Your task to perform on an android device: turn on the 12-hour format for clock Image 0: 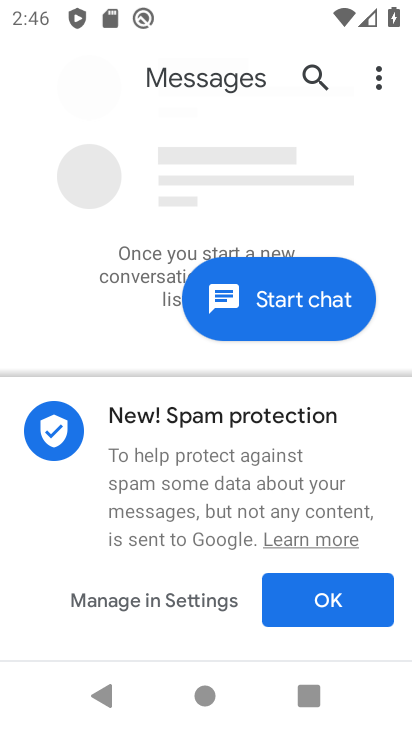
Step 0: drag from (94, 585) to (219, 8)
Your task to perform on an android device: turn on the 12-hour format for clock Image 1: 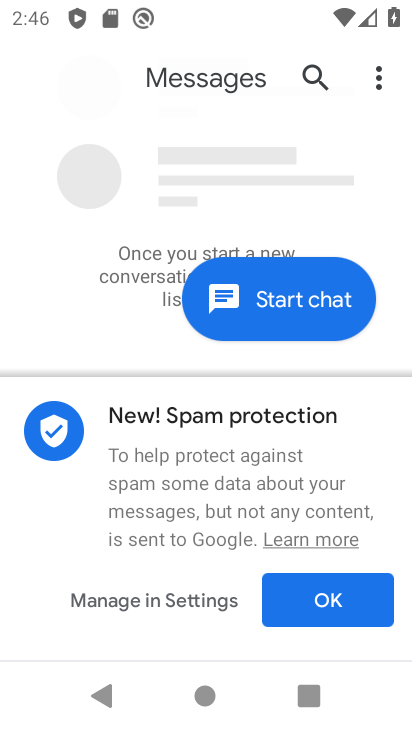
Step 1: press back button
Your task to perform on an android device: turn on the 12-hour format for clock Image 2: 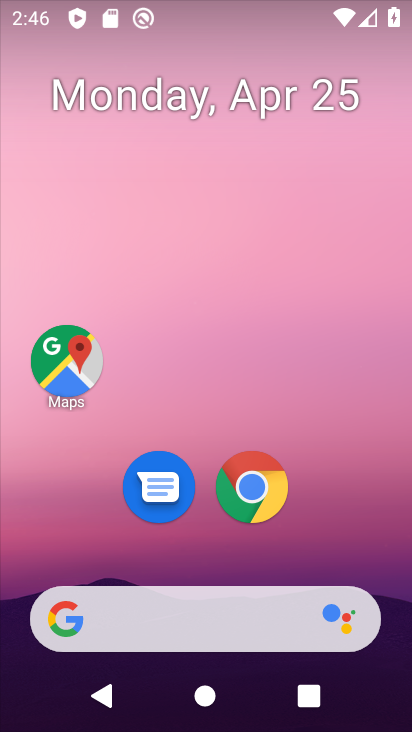
Step 2: drag from (171, 575) to (224, 94)
Your task to perform on an android device: turn on the 12-hour format for clock Image 3: 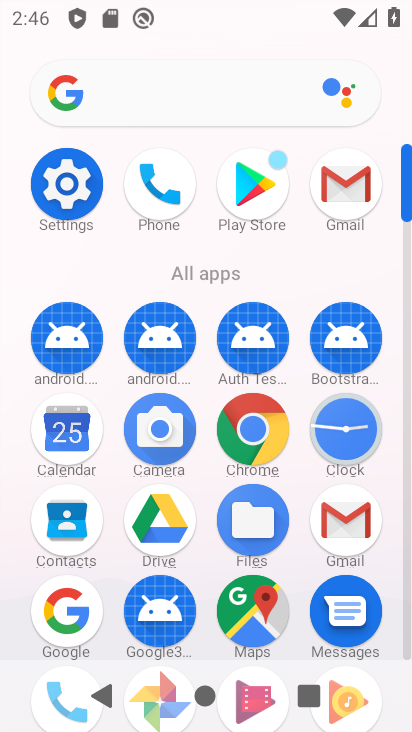
Step 3: drag from (190, 612) to (204, 312)
Your task to perform on an android device: turn on the 12-hour format for clock Image 4: 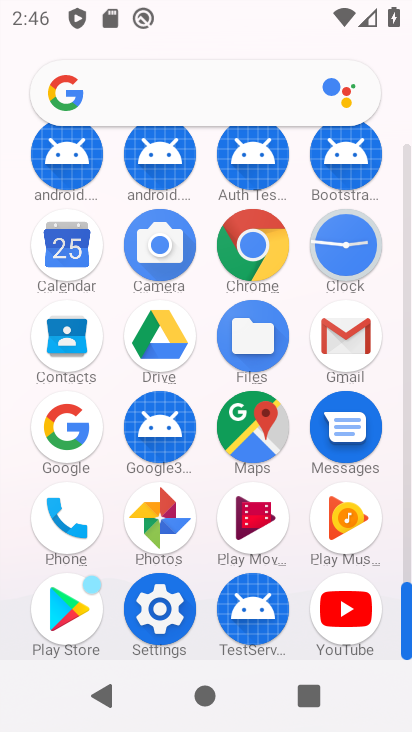
Step 4: click (323, 261)
Your task to perform on an android device: turn on the 12-hour format for clock Image 5: 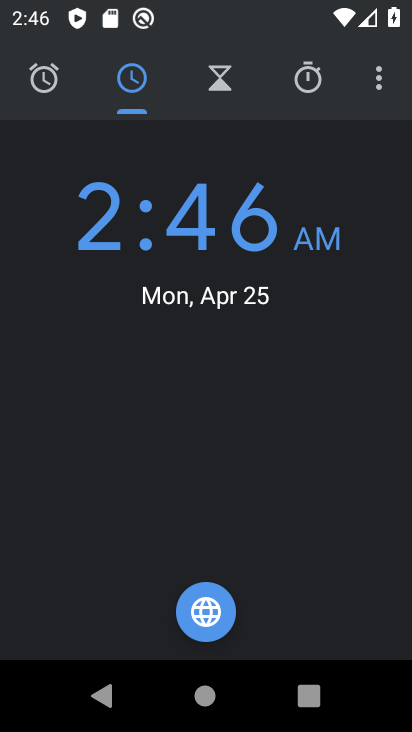
Step 5: click (389, 95)
Your task to perform on an android device: turn on the 12-hour format for clock Image 6: 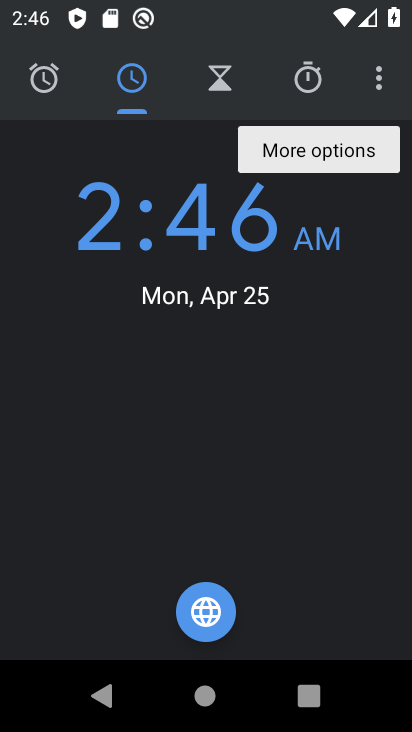
Step 6: click (359, 139)
Your task to perform on an android device: turn on the 12-hour format for clock Image 7: 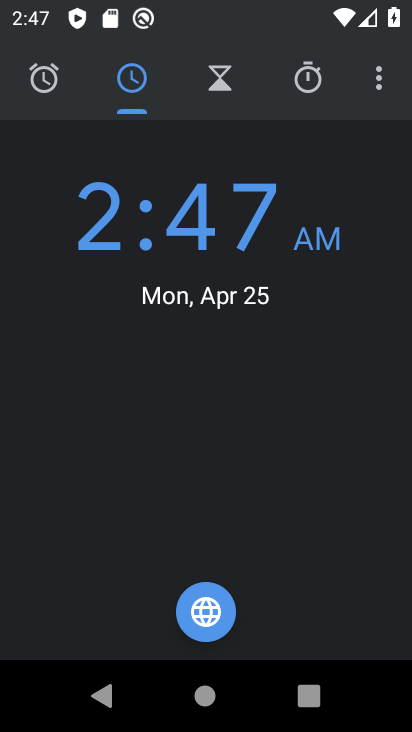
Step 7: click (382, 65)
Your task to perform on an android device: turn on the 12-hour format for clock Image 8: 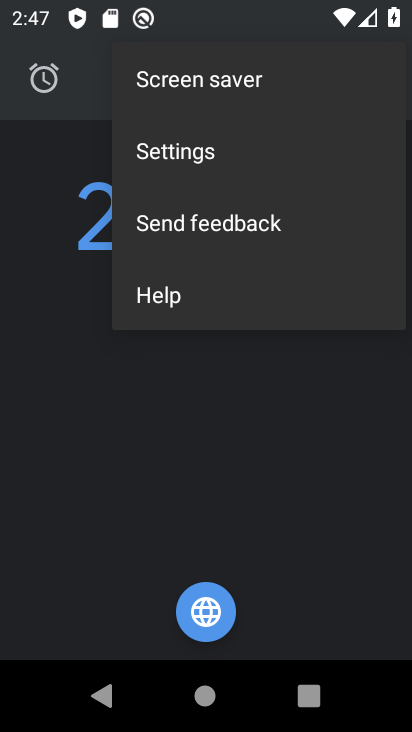
Step 8: click (309, 154)
Your task to perform on an android device: turn on the 12-hour format for clock Image 9: 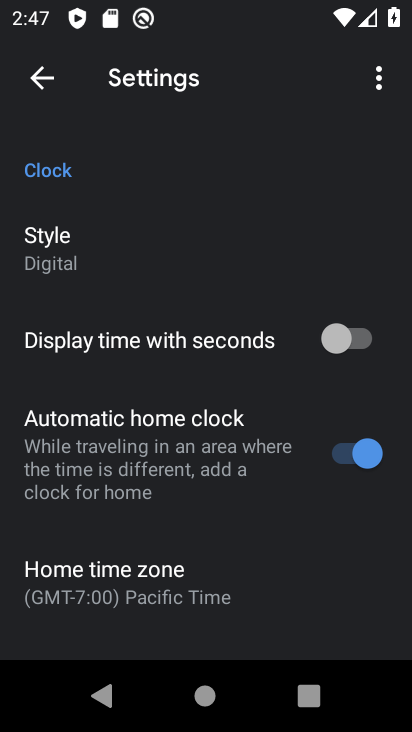
Step 9: drag from (178, 619) to (224, 283)
Your task to perform on an android device: turn on the 12-hour format for clock Image 10: 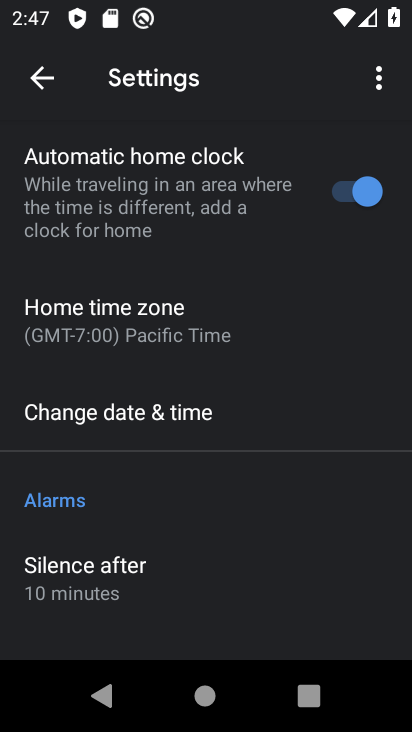
Step 10: click (170, 422)
Your task to perform on an android device: turn on the 12-hour format for clock Image 11: 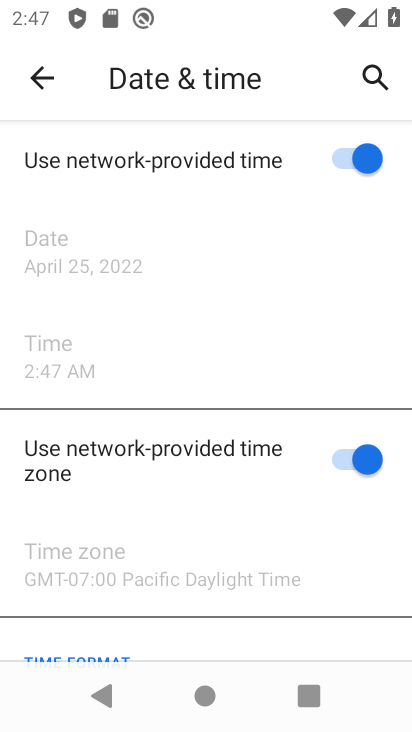
Step 11: task complete